Your task to perform on an android device: uninstall "Facebook Messenger" Image 0: 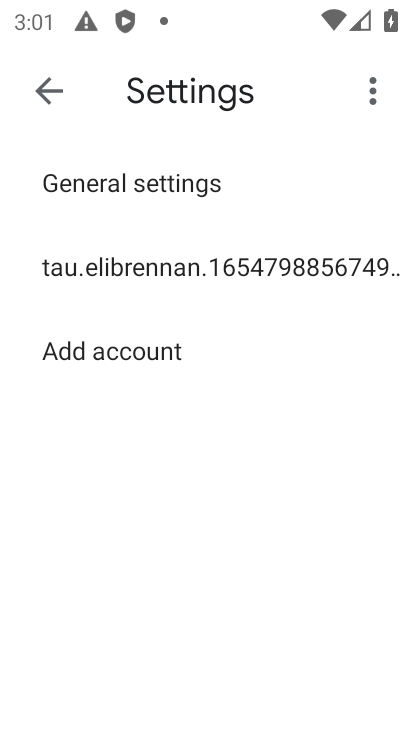
Step 0: press home button
Your task to perform on an android device: uninstall "Facebook Messenger" Image 1: 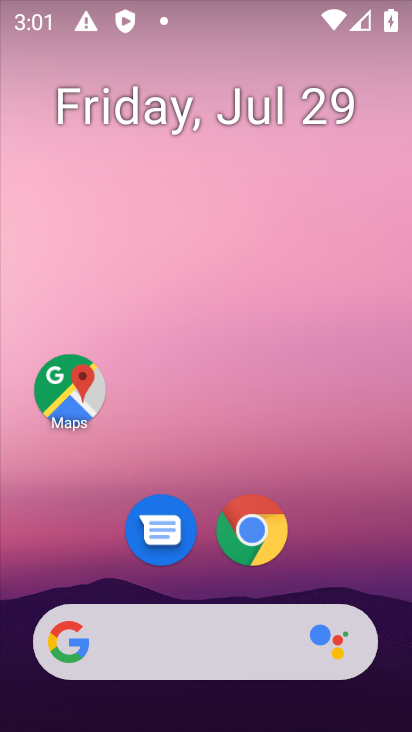
Step 1: drag from (302, 589) to (269, 32)
Your task to perform on an android device: uninstall "Facebook Messenger" Image 2: 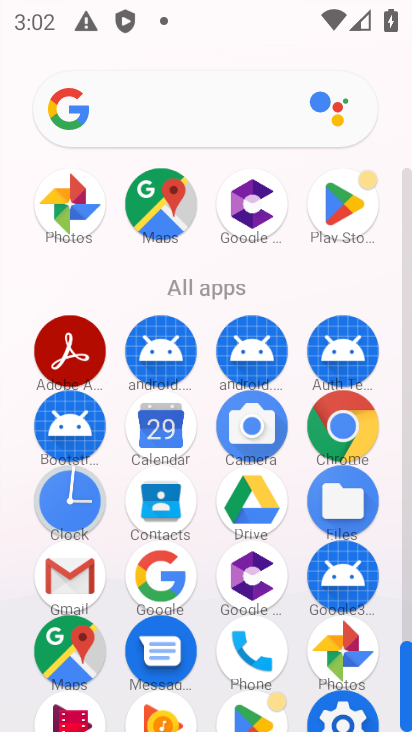
Step 2: click (341, 214)
Your task to perform on an android device: uninstall "Facebook Messenger" Image 3: 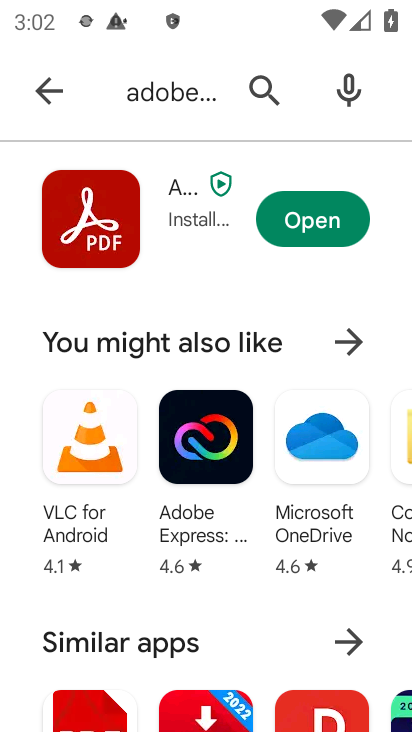
Step 3: click (250, 78)
Your task to perform on an android device: uninstall "Facebook Messenger" Image 4: 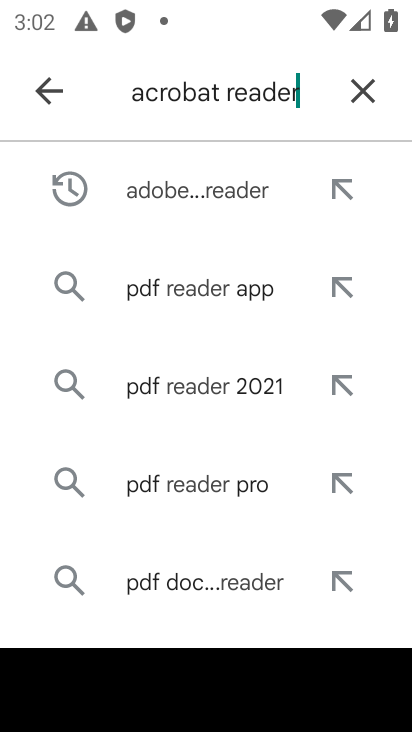
Step 4: click (361, 100)
Your task to perform on an android device: uninstall "Facebook Messenger" Image 5: 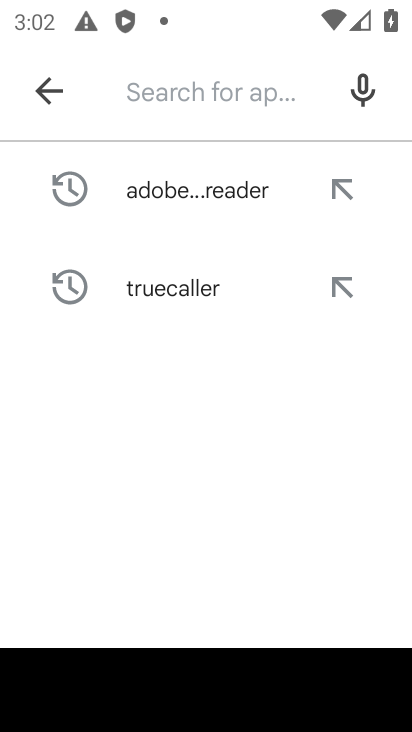
Step 5: type "Facebook Messenger"
Your task to perform on an android device: uninstall "Facebook Messenger" Image 6: 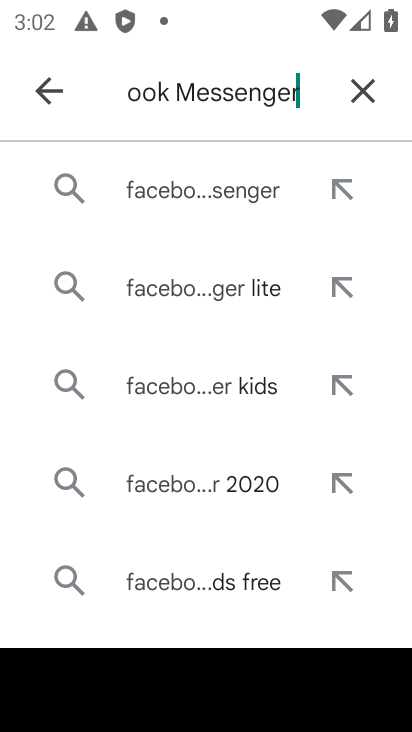
Step 6: click (213, 196)
Your task to perform on an android device: uninstall "Facebook Messenger" Image 7: 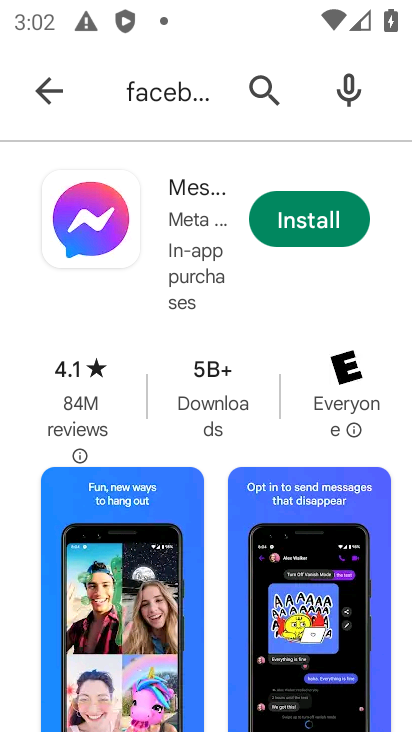
Step 7: task complete